Your task to perform on an android device: Do I have any events this weekend? Image 0: 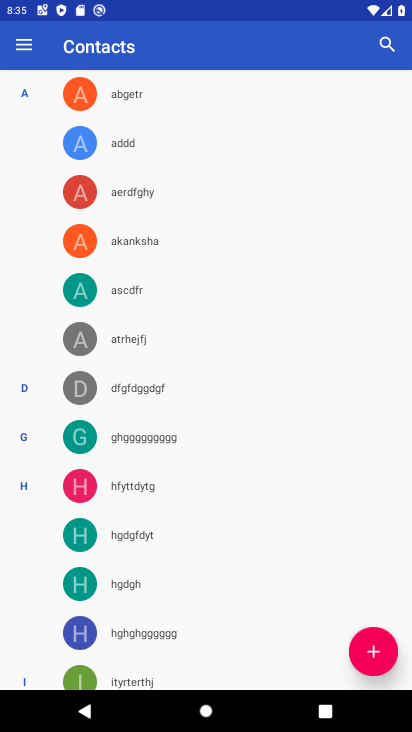
Step 0: press home button
Your task to perform on an android device: Do I have any events this weekend? Image 1: 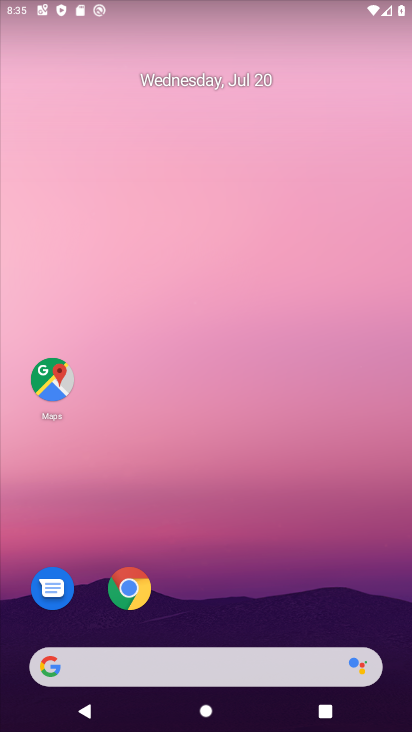
Step 1: drag from (244, 639) to (185, 56)
Your task to perform on an android device: Do I have any events this weekend? Image 2: 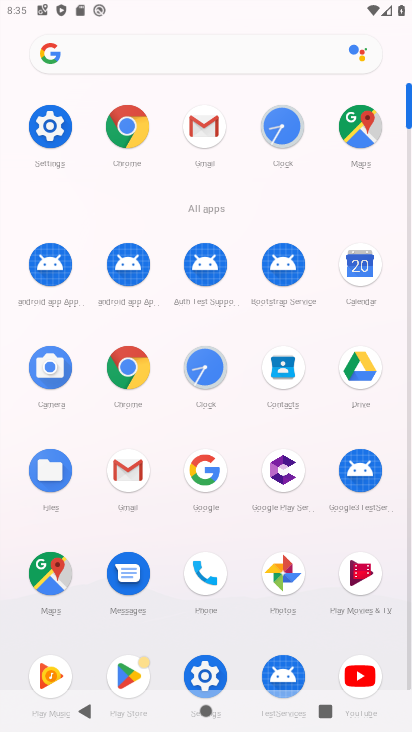
Step 2: click (353, 291)
Your task to perform on an android device: Do I have any events this weekend? Image 3: 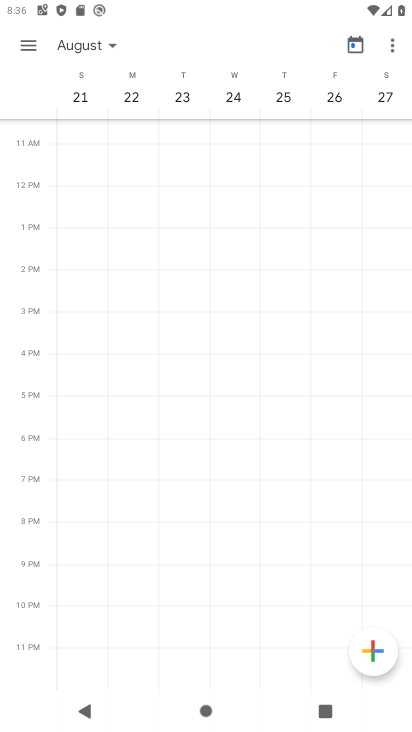
Step 3: click (349, 43)
Your task to perform on an android device: Do I have any events this weekend? Image 4: 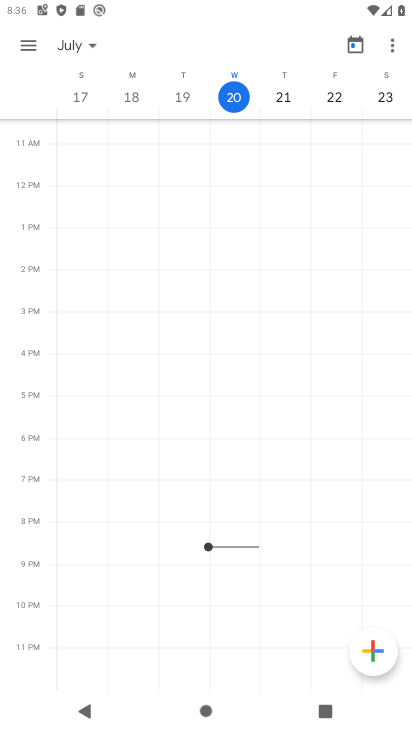
Step 4: task complete